Your task to perform on an android device: Show me the alarms in the clock app Image 0: 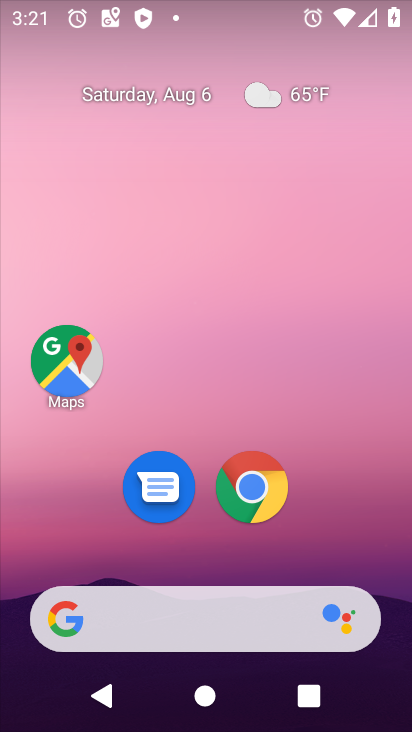
Step 0: drag from (189, 600) to (261, 4)
Your task to perform on an android device: Show me the alarms in the clock app Image 1: 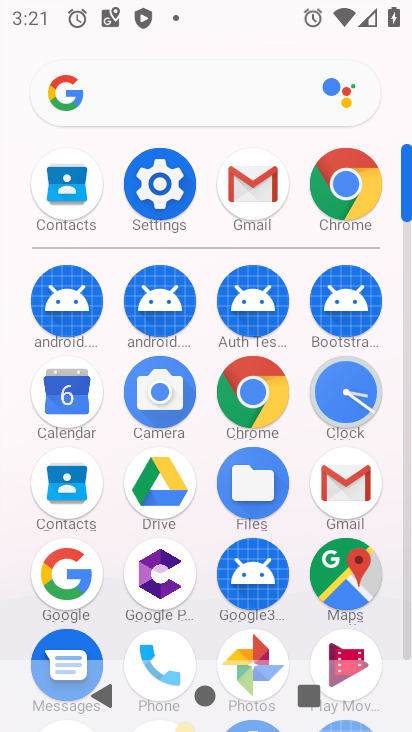
Step 1: click (315, 391)
Your task to perform on an android device: Show me the alarms in the clock app Image 2: 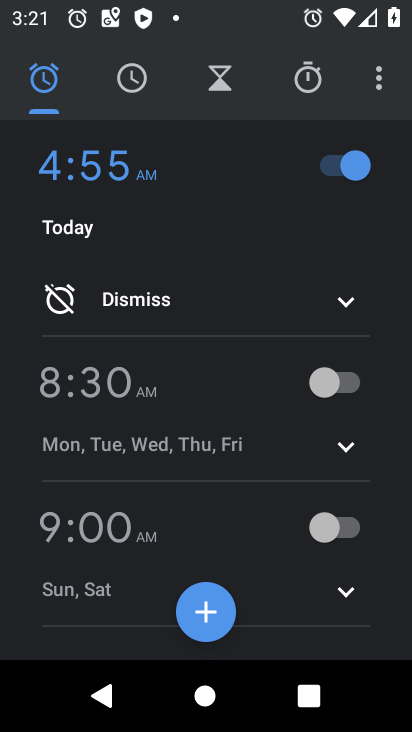
Step 2: task complete